Your task to perform on an android device: Set the phone to "Do not disturb". Image 0: 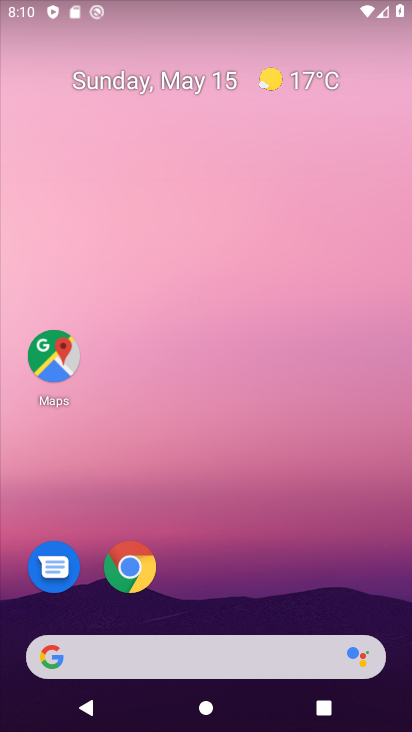
Step 0: drag from (308, 605) to (314, 54)
Your task to perform on an android device: Set the phone to "Do not disturb". Image 1: 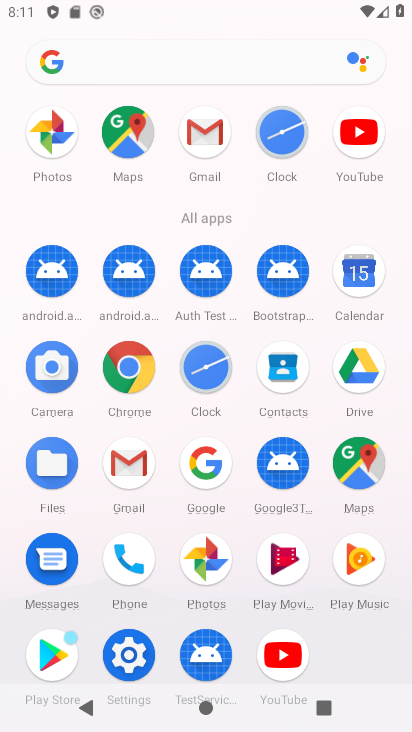
Step 1: drag from (335, 600) to (343, 381)
Your task to perform on an android device: Set the phone to "Do not disturb". Image 2: 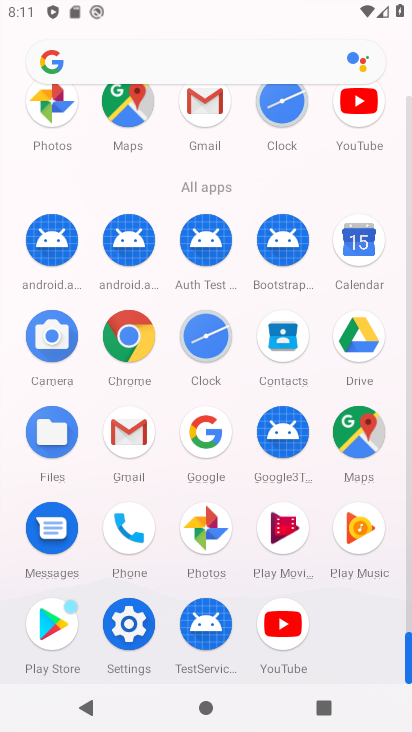
Step 2: click (124, 628)
Your task to perform on an android device: Set the phone to "Do not disturb". Image 3: 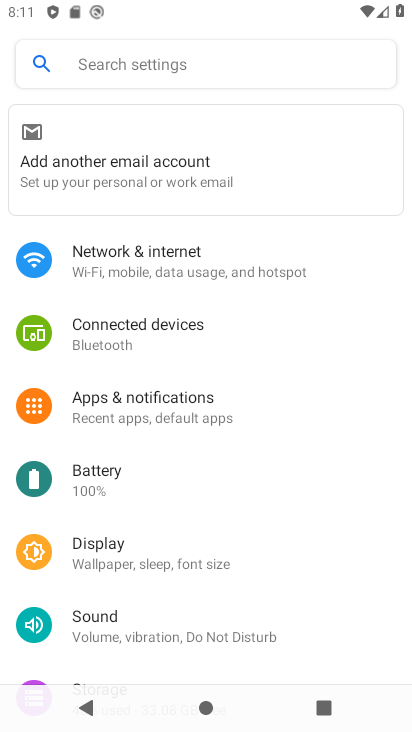
Step 3: drag from (146, 646) to (180, 378)
Your task to perform on an android device: Set the phone to "Do not disturb". Image 4: 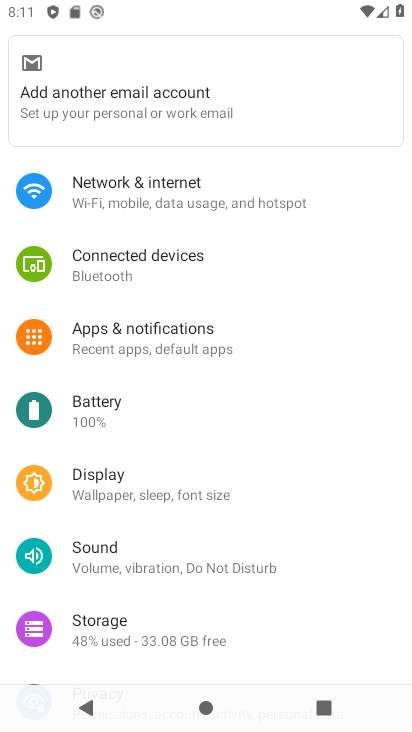
Step 4: click (150, 549)
Your task to perform on an android device: Set the phone to "Do not disturb". Image 5: 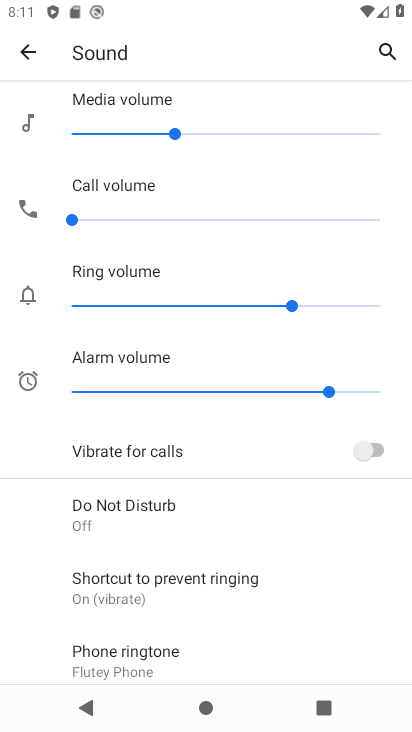
Step 5: drag from (230, 650) to (259, 369)
Your task to perform on an android device: Set the phone to "Do not disturb". Image 6: 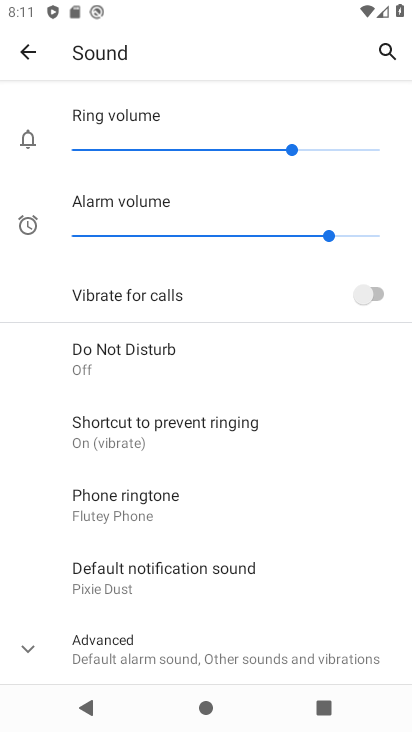
Step 6: click (157, 340)
Your task to perform on an android device: Set the phone to "Do not disturb". Image 7: 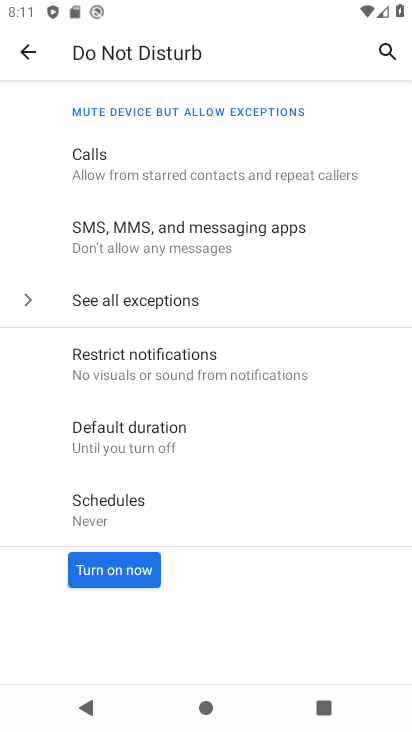
Step 7: click (137, 579)
Your task to perform on an android device: Set the phone to "Do not disturb". Image 8: 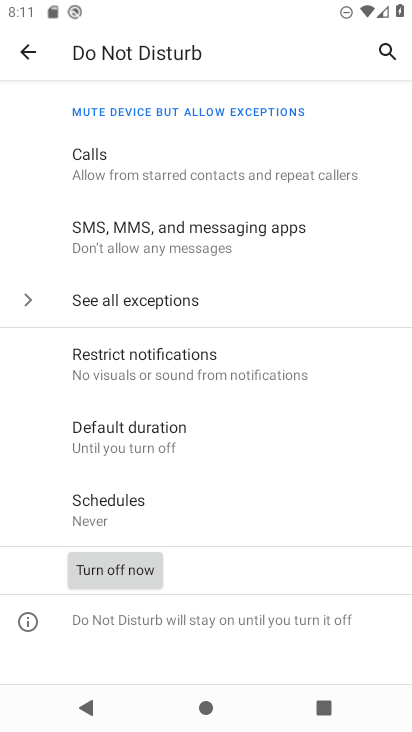
Step 8: task complete